Your task to perform on an android device: see sites visited before in the chrome app Image 0: 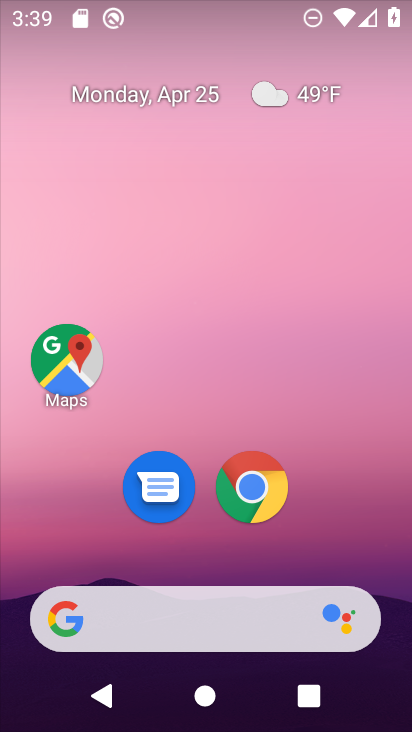
Step 0: click (254, 505)
Your task to perform on an android device: see sites visited before in the chrome app Image 1: 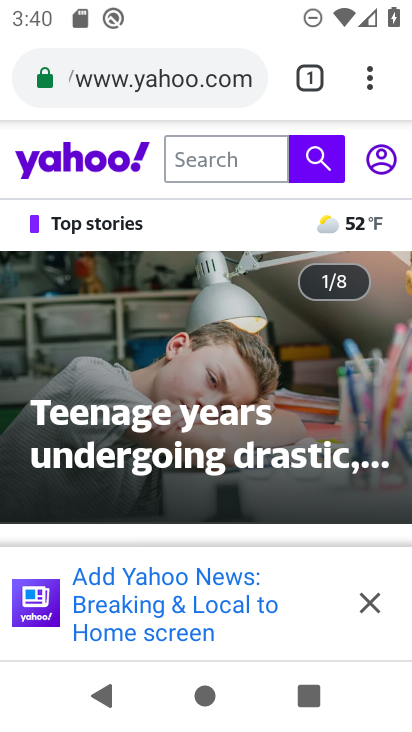
Step 1: click (370, 80)
Your task to perform on an android device: see sites visited before in the chrome app Image 2: 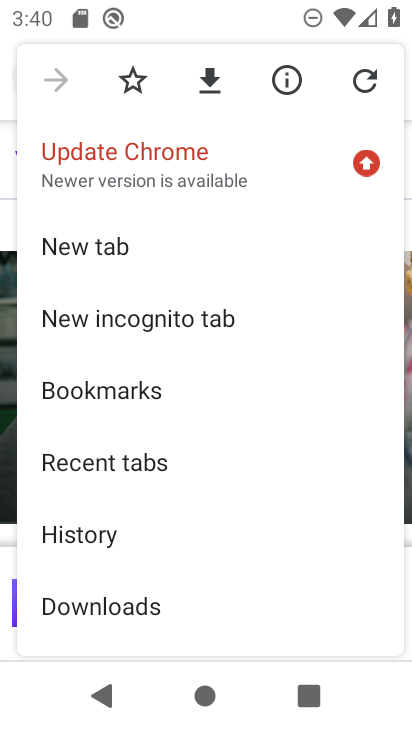
Step 2: click (113, 537)
Your task to perform on an android device: see sites visited before in the chrome app Image 3: 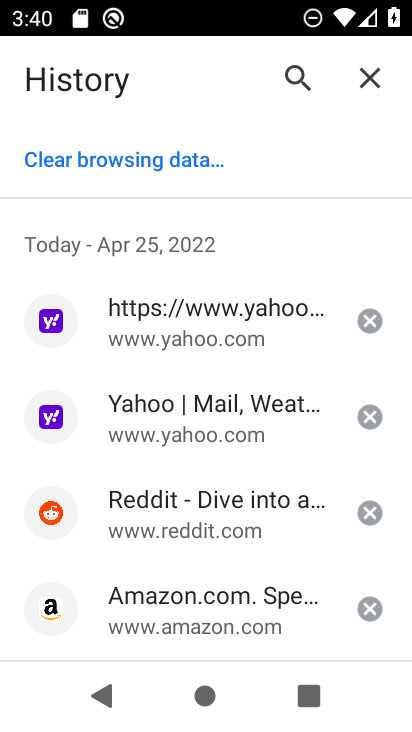
Step 3: task complete